Your task to perform on an android device: turn off javascript in the chrome app Image 0: 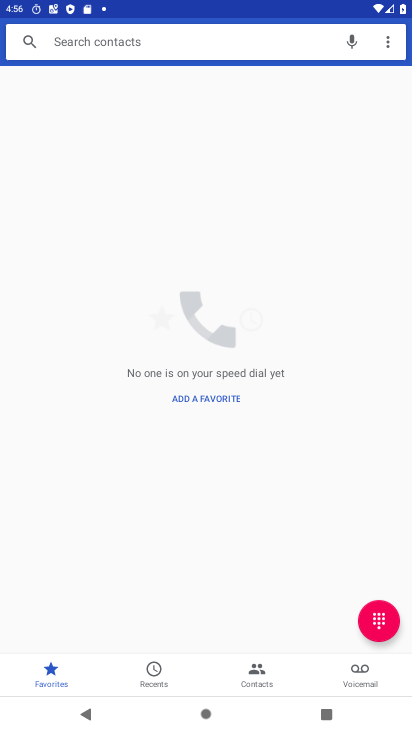
Step 0: drag from (268, 709) to (233, 118)
Your task to perform on an android device: turn off javascript in the chrome app Image 1: 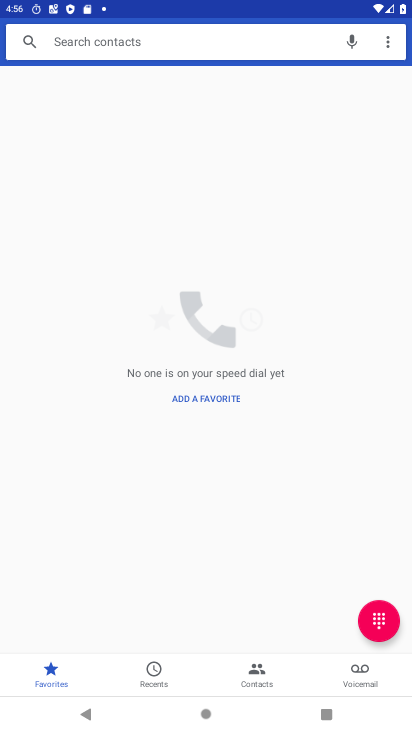
Step 1: press back button
Your task to perform on an android device: turn off javascript in the chrome app Image 2: 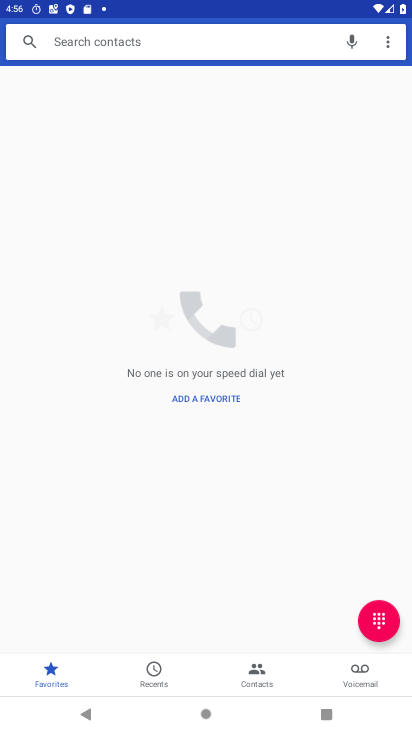
Step 2: press back button
Your task to perform on an android device: turn off javascript in the chrome app Image 3: 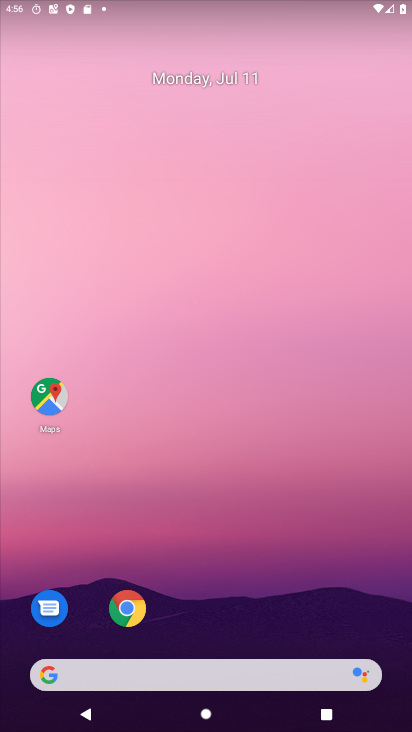
Step 3: drag from (294, 714) to (272, 86)
Your task to perform on an android device: turn off javascript in the chrome app Image 4: 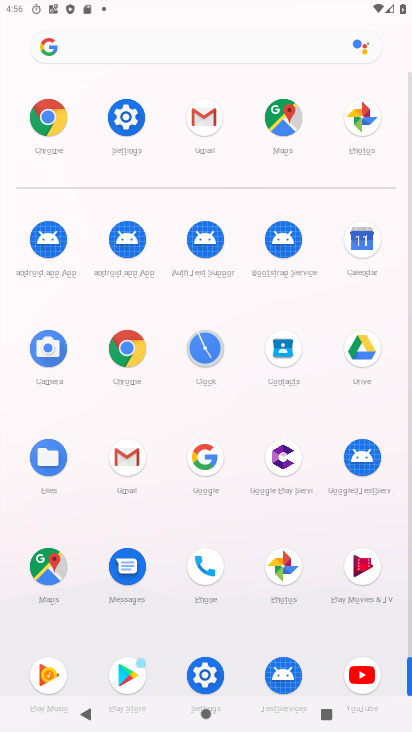
Step 4: click (48, 125)
Your task to perform on an android device: turn off javascript in the chrome app Image 5: 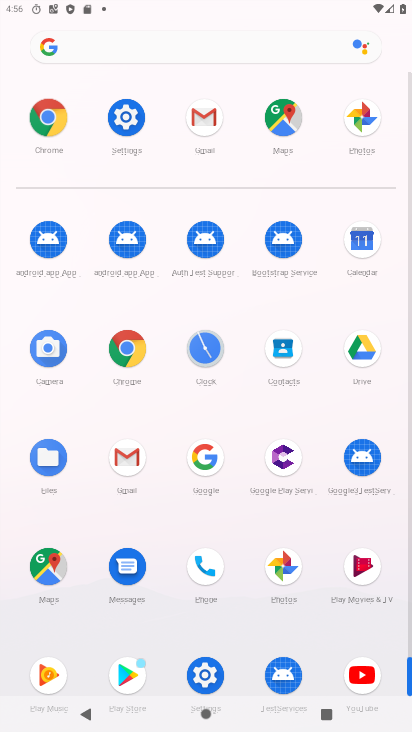
Step 5: click (61, 110)
Your task to perform on an android device: turn off javascript in the chrome app Image 6: 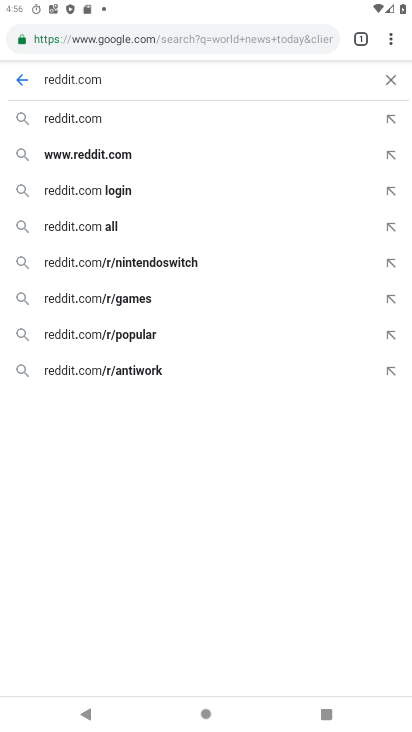
Step 6: drag from (397, 39) to (252, 481)
Your task to perform on an android device: turn off javascript in the chrome app Image 7: 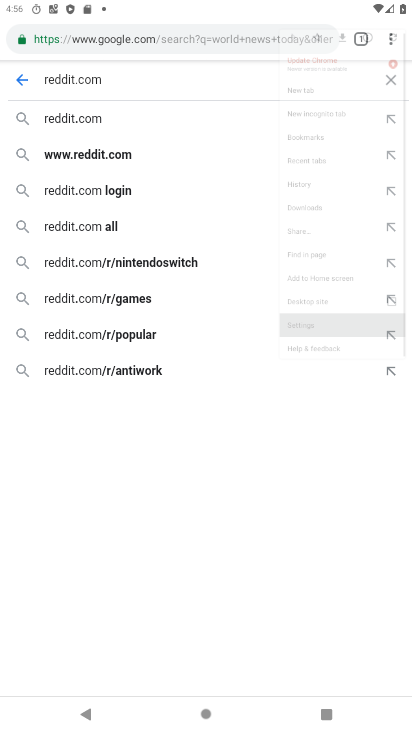
Step 7: click (253, 481)
Your task to perform on an android device: turn off javascript in the chrome app Image 8: 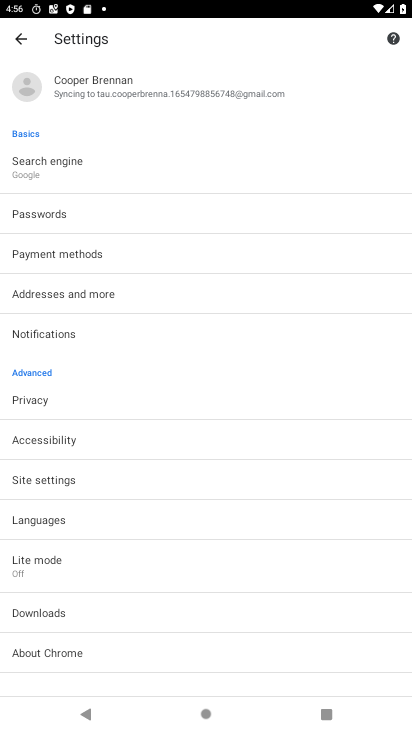
Step 8: drag from (56, 603) to (87, 274)
Your task to perform on an android device: turn off javascript in the chrome app Image 9: 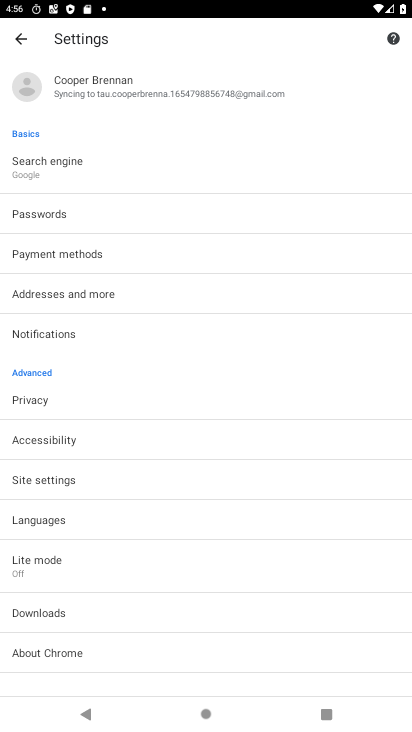
Step 9: drag from (83, 523) to (71, 315)
Your task to perform on an android device: turn off javascript in the chrome app Image 10: 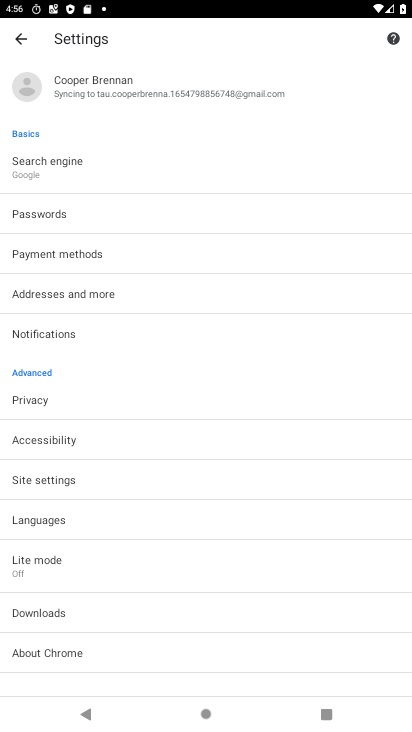
Step 10: click (61, 486)
Your task to perform on an android device: turn off javascript in the chrome app Image 11: 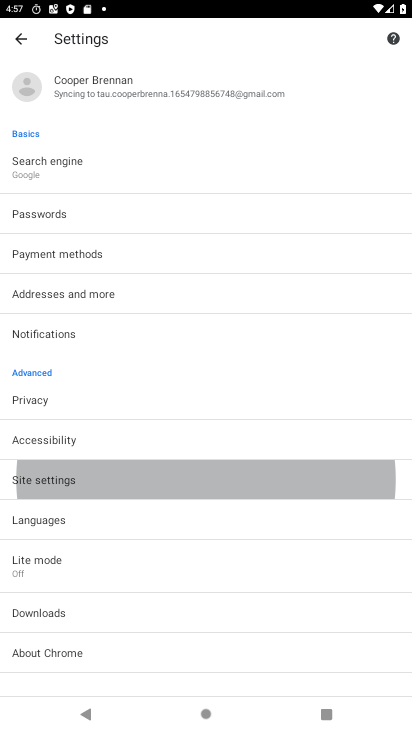
Step 11: click (62, 482)
Your task to perform on an android device: turn off javascript in the chrome app Image 12: 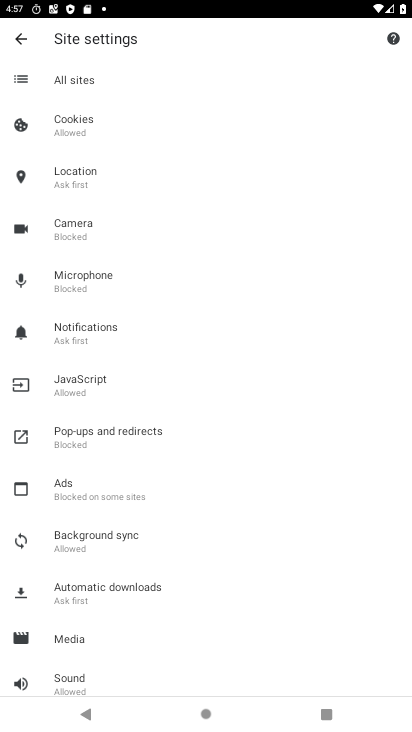
Step 12: click (71, 377)
Your task to perform on an android device: turn off javascript in the chrome app Image 13: 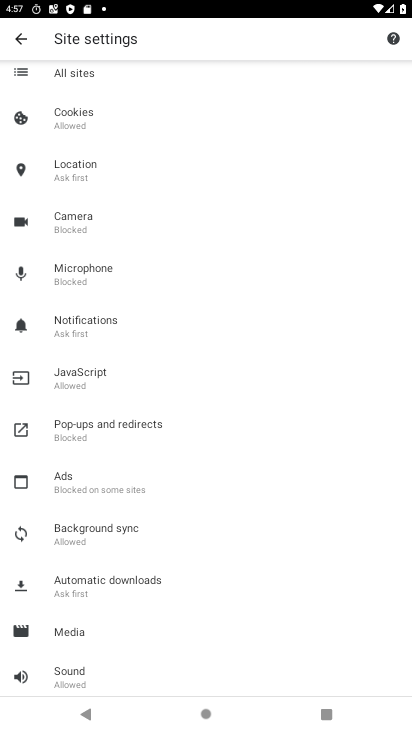
Step 13: click (63, 368)
Your task to perform on an android device: turn off javascript in the chrome app Image 14: 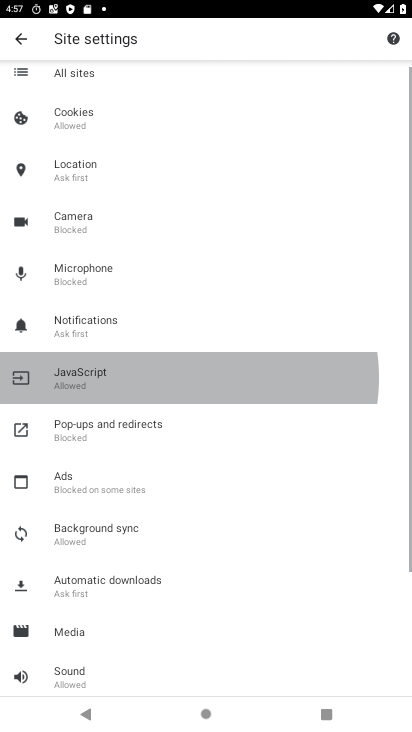
Step 14: click (63, 368)
Your task to perform on an android device: turn off javascript in the chrome app Image 15: 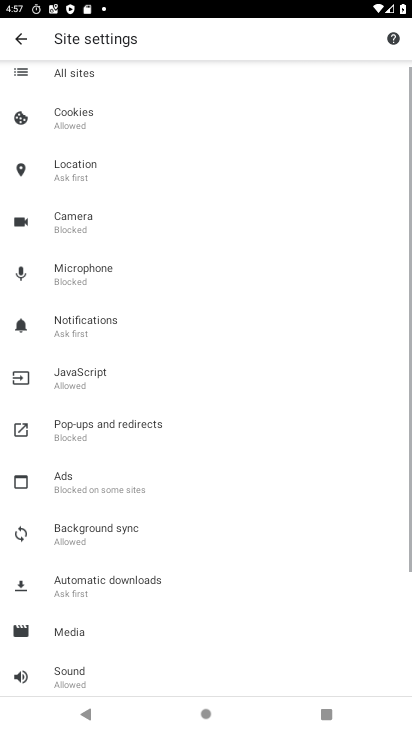
Step 15: click (67, 365)
Your task to perform on an android device: turn off javascript in the chrome app Image 16: 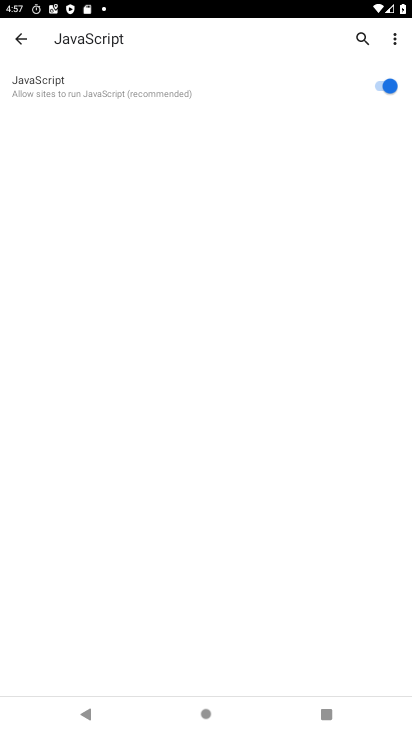
Step 16: click (69, 364)
Your task to perform on an android device: turn off javascript in the chrome app Image 17: 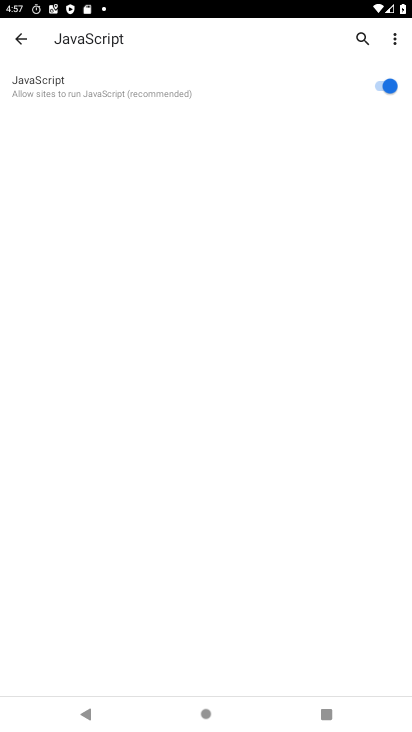
Step 17: click (386, 75)
Your task to perform on an android device: turn off javascript in the chrome app Image 18: 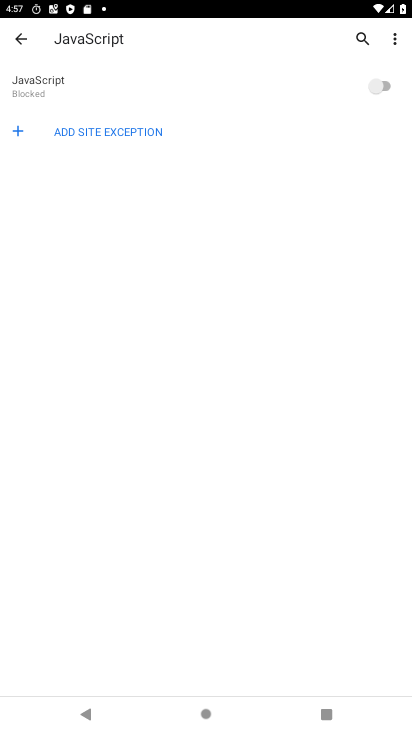
Step 18: task complete